Your task to perform on an android device: Open Chrome and go to the settings page Image 0: 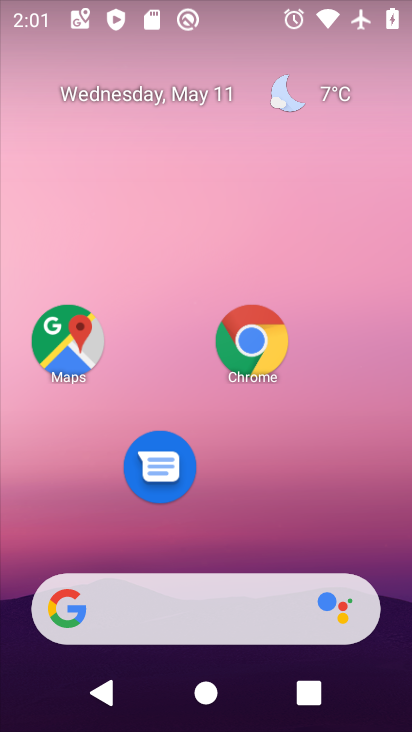
Step 0: press home button
Your task to perform on an android device: Open Chrome and go to the settings page Image 1: 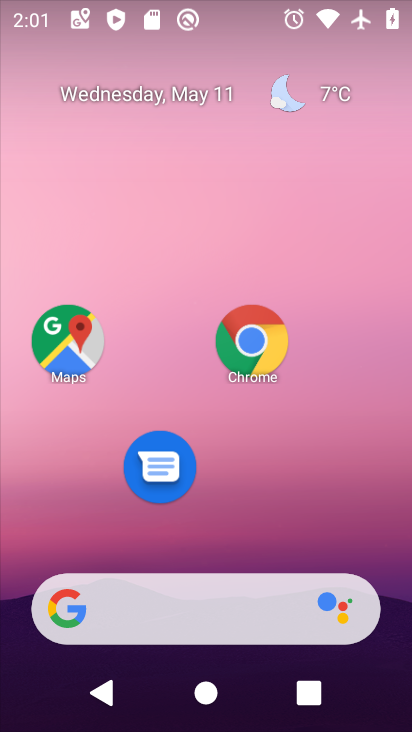
Step 1: click (261, 352)
Your task to perform on an android device: Open Chrome and go to the settings page Image 2: 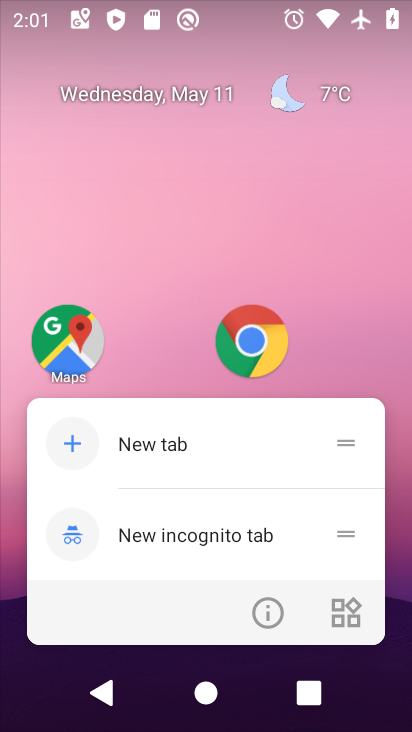
Step 2: click (250, 343)
Your task to perform on an android device: Open Chrome and go to the settings page Image 3: 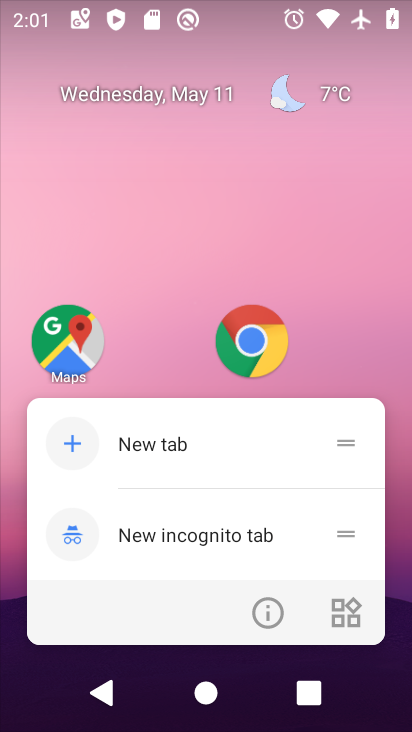
Step 3: click (250, 345)
Your task to perform on an android device: Open Chrome and go to the settings page Image 4: 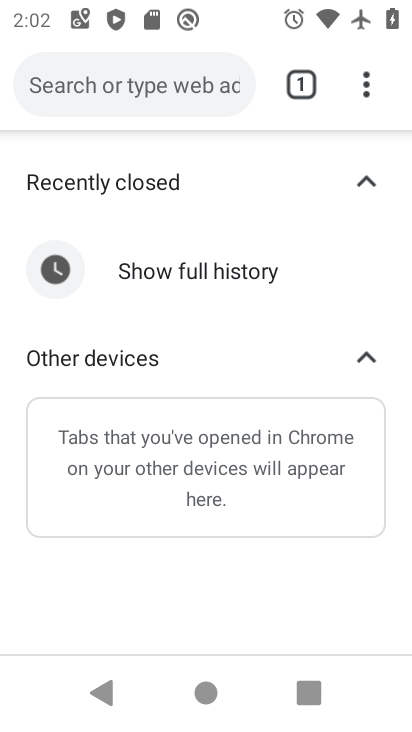
Step 4: task complete